Your task to perform on an android device: Go to calendar. Show me events next week Image 0: 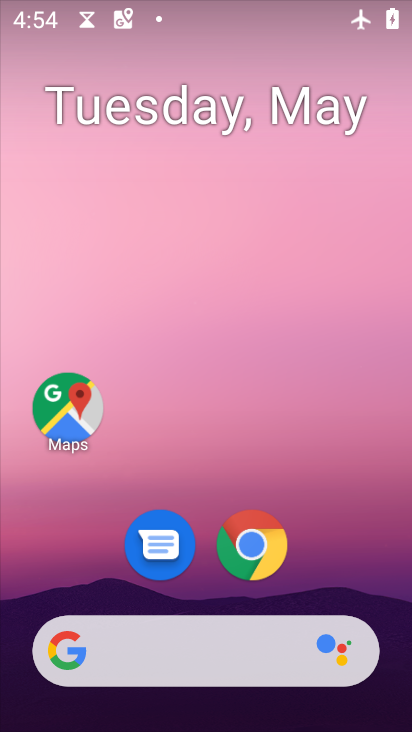
Step 0: drag from (337, 573) to (261, 80)
Your task to perform on an android device: Go to calendar. Show me events next week Image 1: 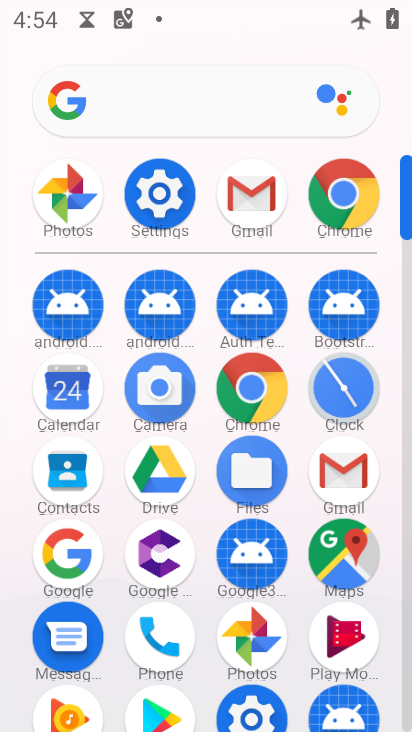
Step 1: click (64, 387)
Your task to perform on an android device: Go to calendar. Show me events next week Image 2: 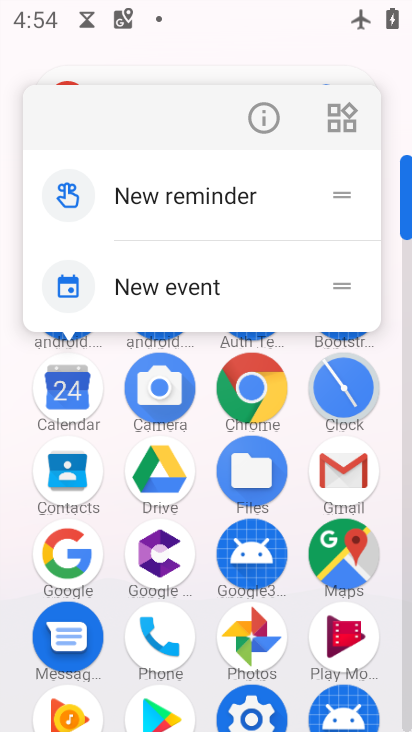
Step 2: click (64, 387)
Your task to perform on an android device: Go to calendar. Show me events next week Image 3: 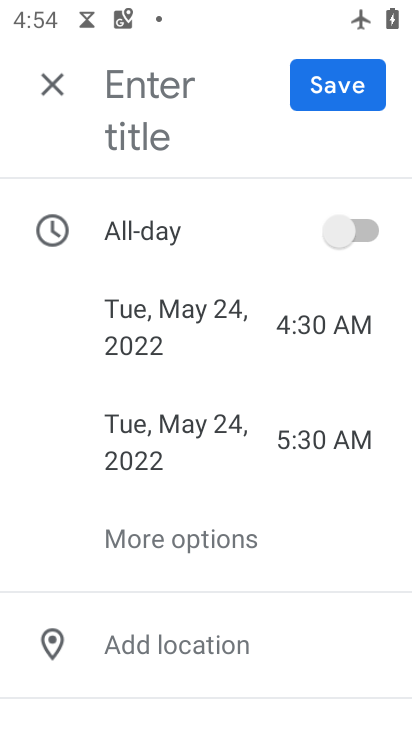
Step 3: click (45, 74)
Your task to perform on an android device: Go to calendar. Show me events next week Image 4: 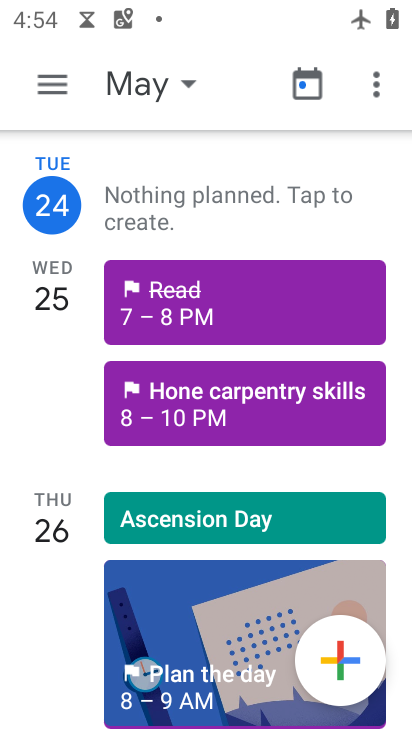
Step 4: click (311, 83)
Your task to perform on an android device: Go to calendar. Show me events next week Image 5: 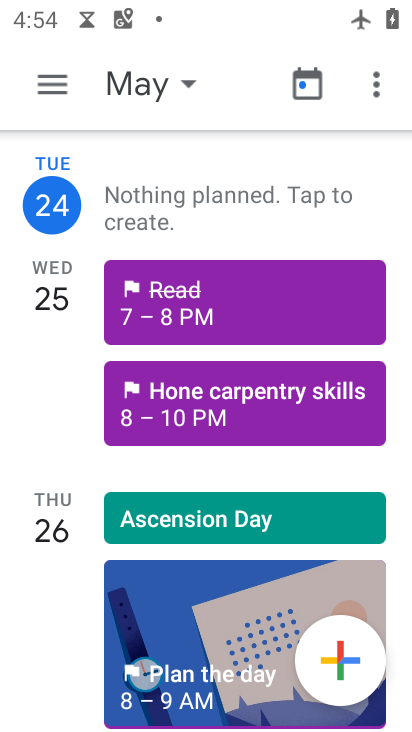
Step 5: click (186, 86)
Your task to perform on an android device: Go to calendar. Show me events next week Image 6: 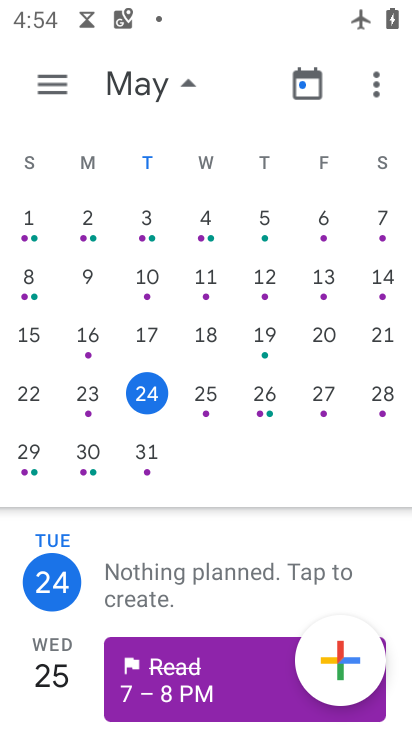
Step 6: click (91, 459)
Your task to perform on an android device: Go to calendar. Show me events next week Image 7: 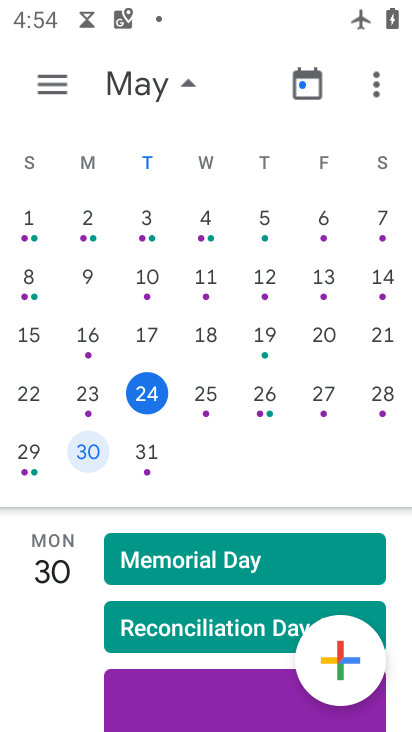
Step 7: click (63, 88)
Your task to perform on an android device: Go to calendar. Show me events next week Image 8: 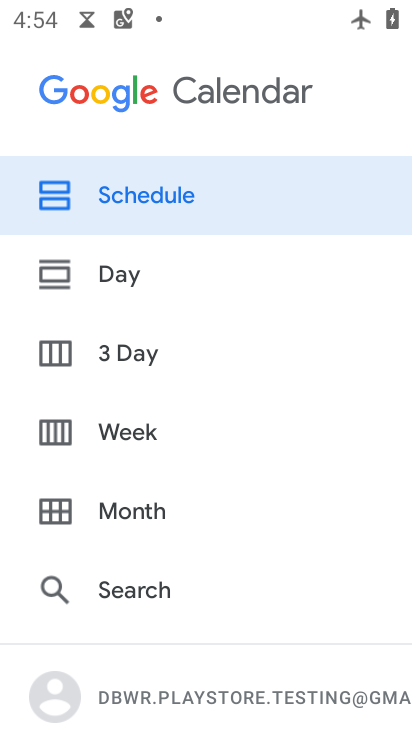
Step 8: click (111, 428)
Your task to perform on an android device: Go to calendar. Show me events next week Image 9: 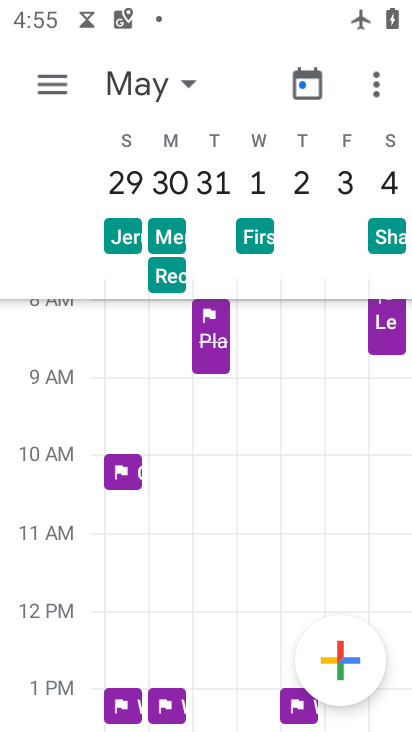
Step 9: task complete